Your task to perform on an android device: Empty the shopping cart on walmart.com. Image 0: 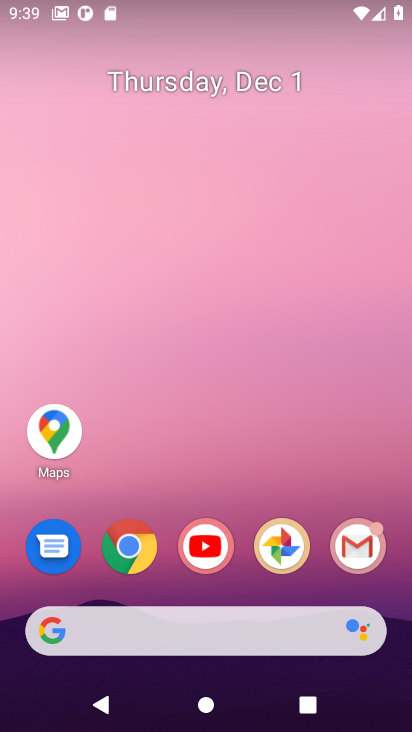
Step 0: click (139, 549)
Your task to perform on an android device: Empty the shopping cart on walmart.com. Image 1: 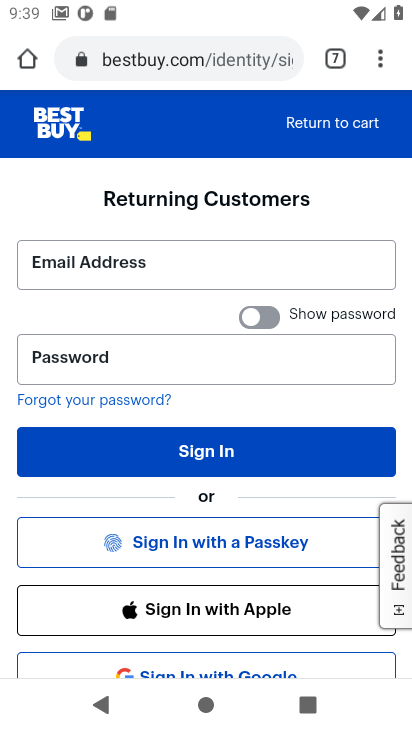
Step 1: click (168, 65)
Your task to perform on an android device: Empty the shopping cart on walmart.com. Image 2: 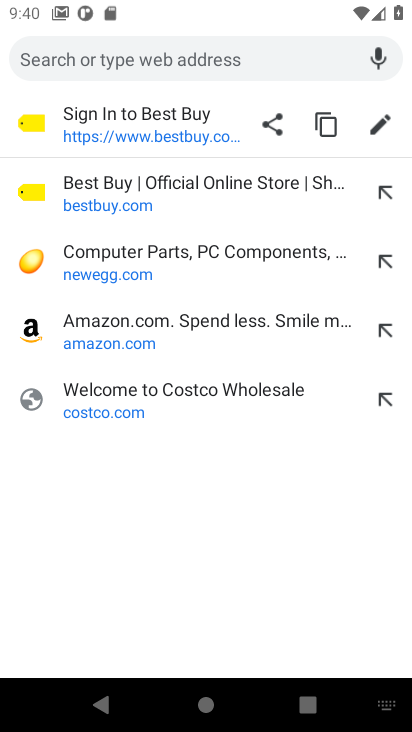
Step 2: type "walmart.com"
Your task to perform on an android device: Empty the shopping cart on walmart.com. Image 3: 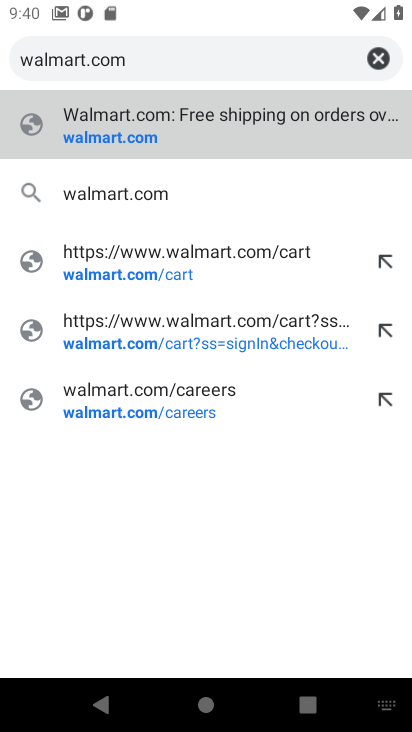
Step 3: click (118, 127)
Your task to perform on an android device: Empty the shopping cart on walmart.com. Image 4: 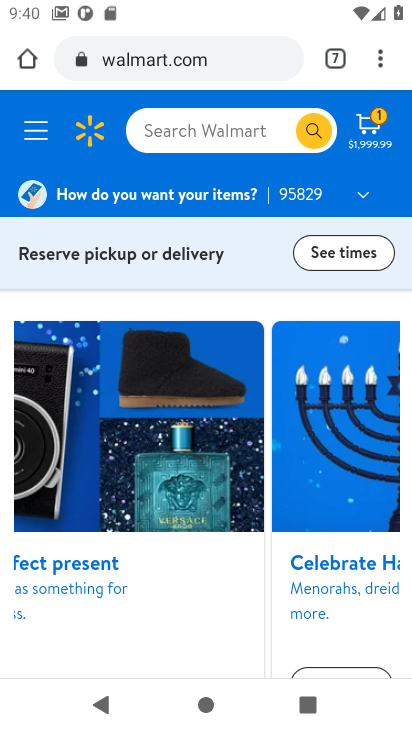
Step 4: click (375, 129)
Your task to perform on an android device: Empty the shopping cart on walmart.com. Image 5: 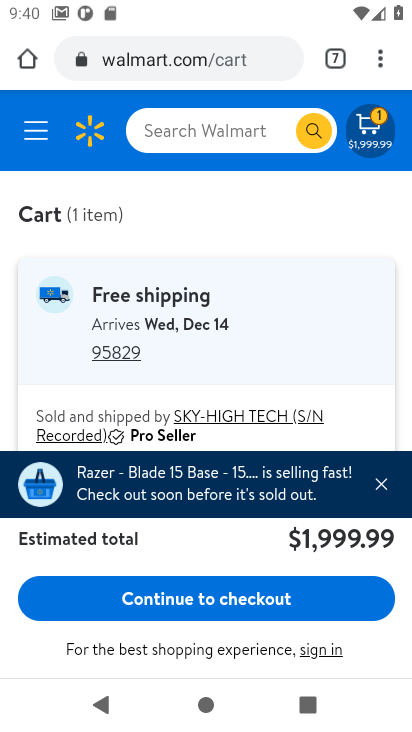
Step 5: drag from (239, 385) to (239, 262)
Your task to perform on an android device: Empty the shopping cart on walmart.com. Image 6: 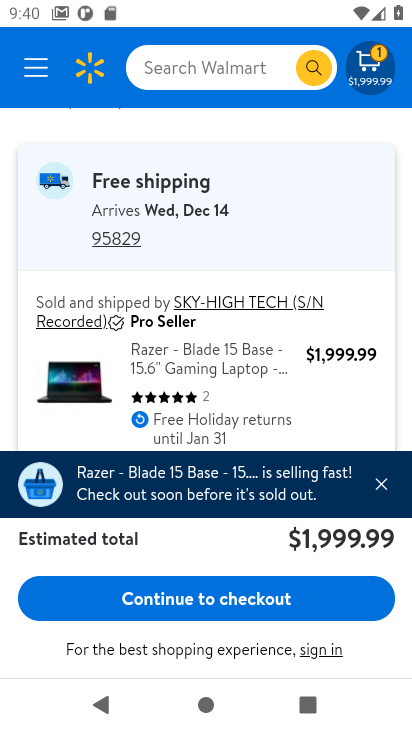
Step 6: click (380, 487)
Your task to perform on an android device: Empty the shopping cart on walmart.com. Image 7: 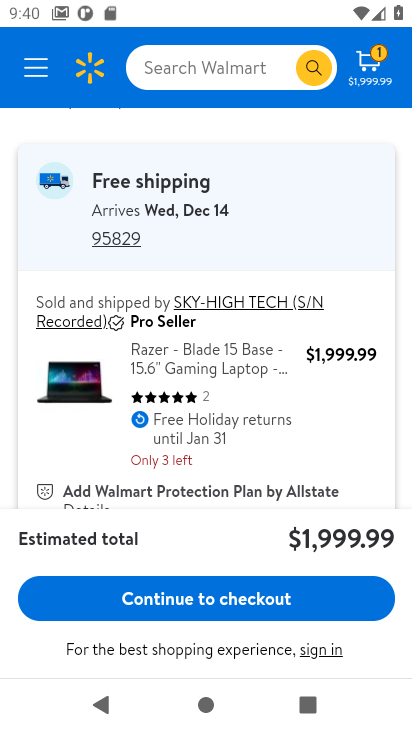
Step 7: drag from (272, 468) to (264, 279)
Your task to perform on an android device: Empty the shopping cart on walmart.com. Image 8: 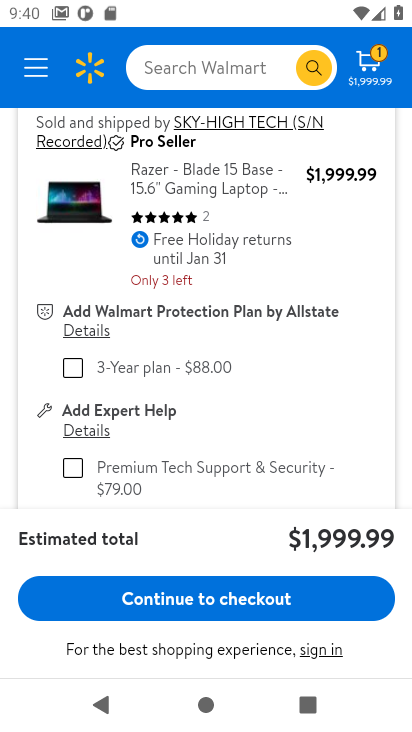
Step 8: drag from (188, 361) to (181, 175)
Your task to perform on an android device: Empty the shopping cart on walmart.com. Image 9: 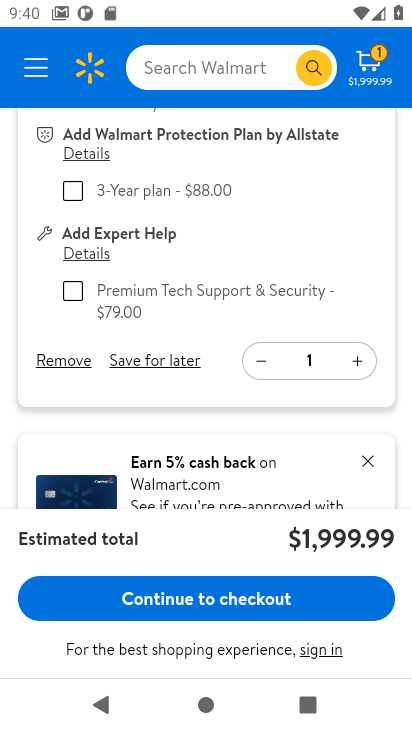
Step 9: click (66, 359)
Your task to perform on an android device: Empty the shopping cart on walmart.com. Image 10: 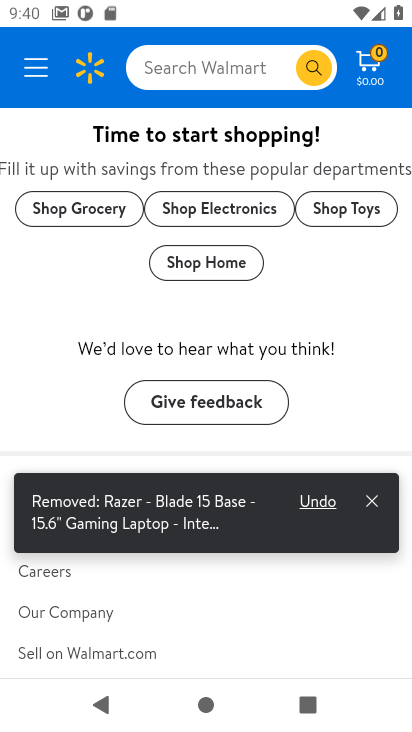
Step 10: task complete